Your task to perform on an android device: Is it going to rain tomorrow? Image 0: 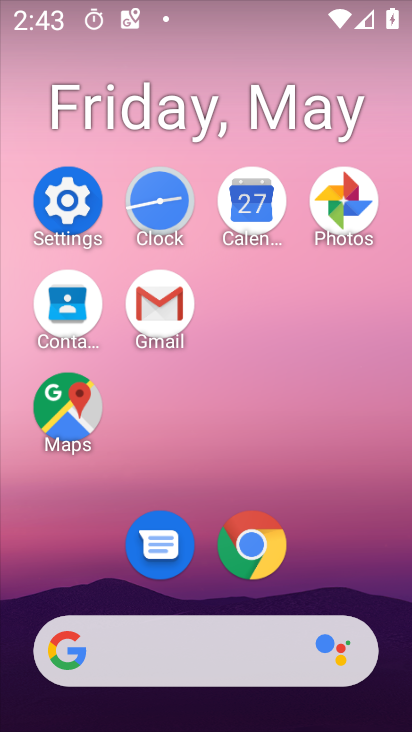
Step 0: drag from (318, 482) to (298, 111)
Your task to perform on an android device: Is it going to rain tomorrow? Image 1: 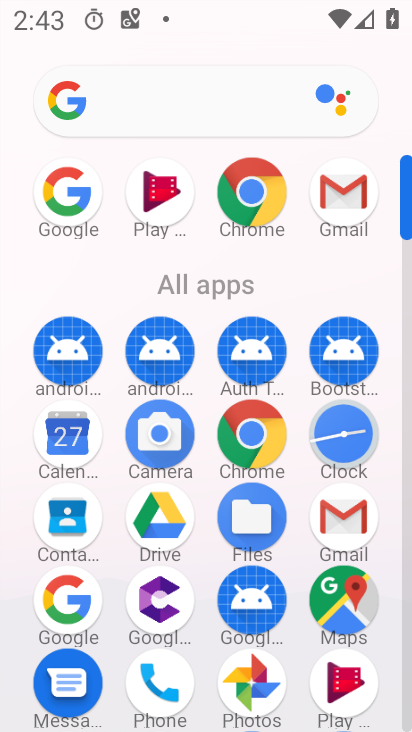
Step 1: click (77, 621)
Your task to perform on an android device: Is it going to rain tomorrow? Image 2: 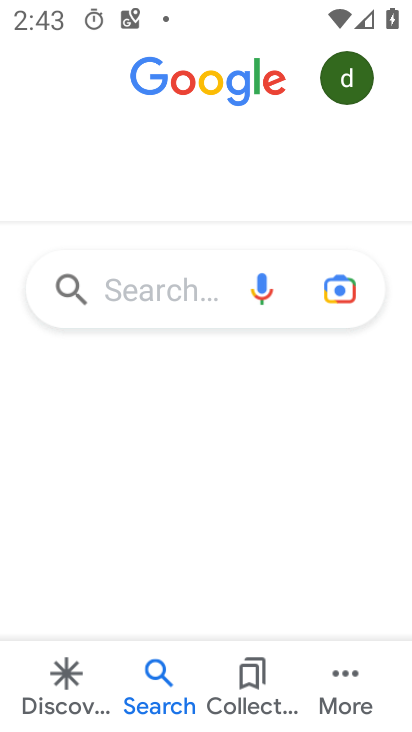
Step 2: click (112, 286)
Your task to perform on an android device: Is it going to rain tomorrow? Image 3: 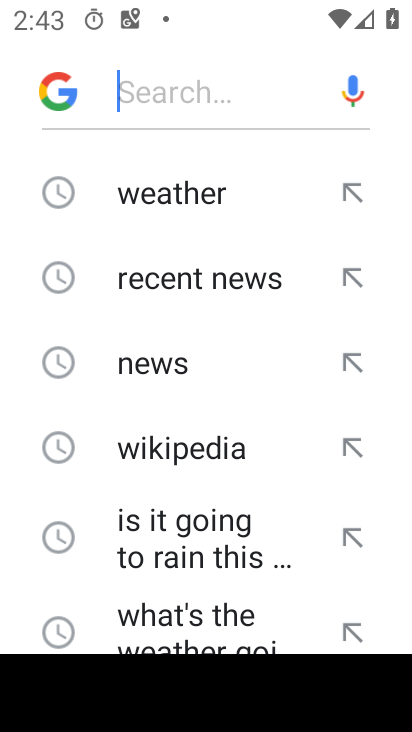
Step 3: click (153, 188)
Your task to perform on an android device: Is it going to rain tomorrow? Image 4: 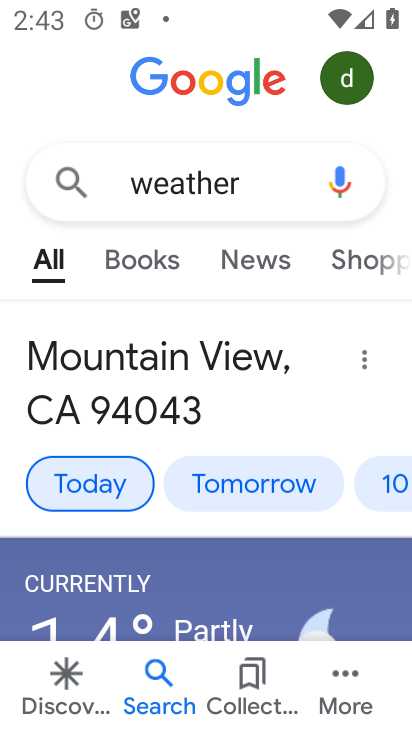
Step 4: task complete